Your task to perform on an android device: Open Google Chrome and open the bookmarks view Image 0: 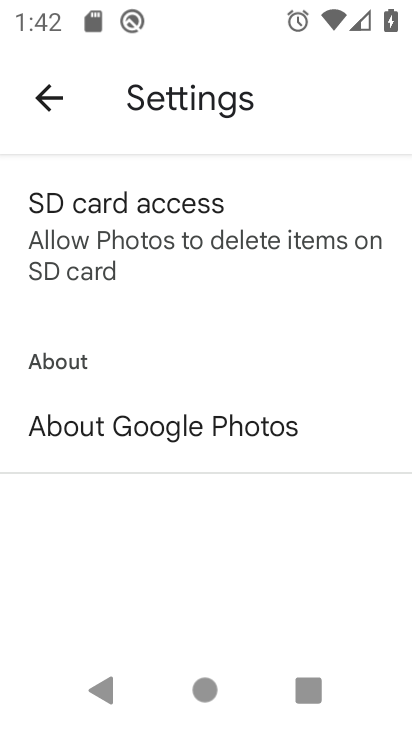
Step 0: press home button
Your task to perform on an android device: Open Google Chrome and open the bookmarks view Image 1: 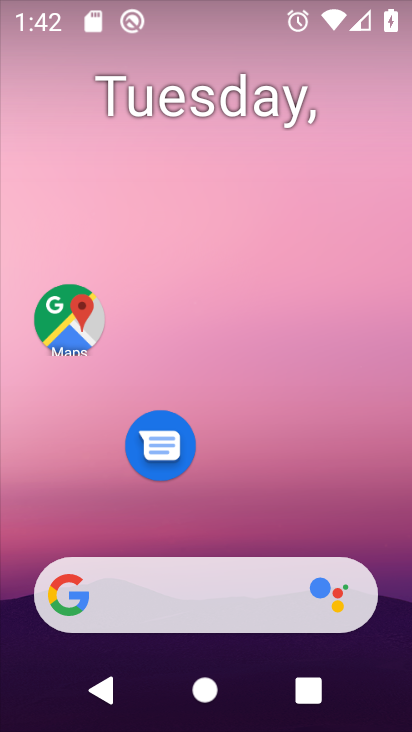
Step 1: drag from (265, 462) to (172, 110)
Your task to perform on an android device: Open Google Chrome and open the bookmarks view Image 2: 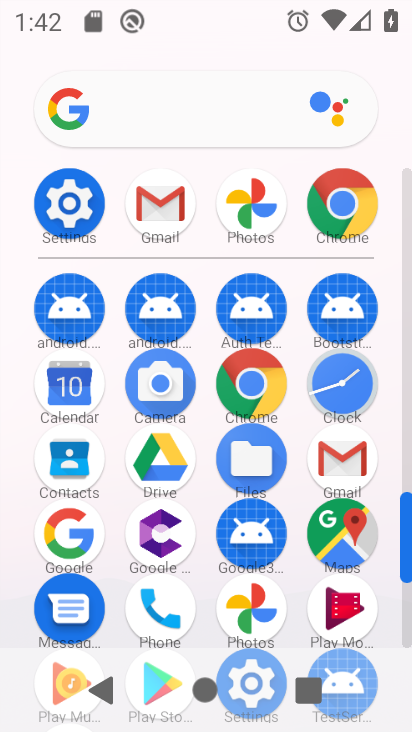
Step 2: click (339, 201)
Your task to perform on an android device: Open Google Chrome and open the bookmarks view Image 3: 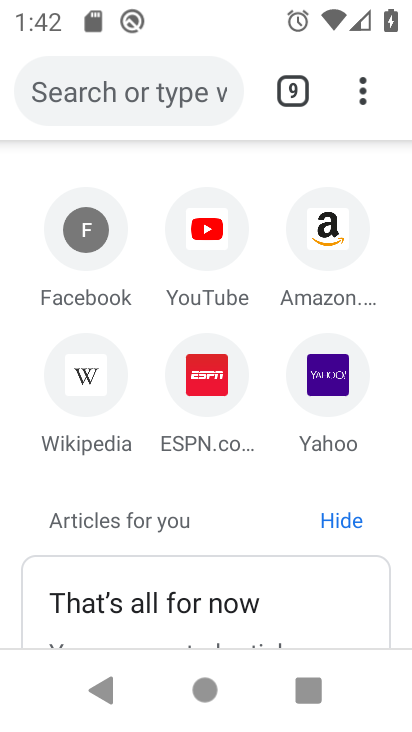
Step 3: click (361, 89)
Your task to perform on an android device: Open Google Chrome and open the bookmarks view Image 4: 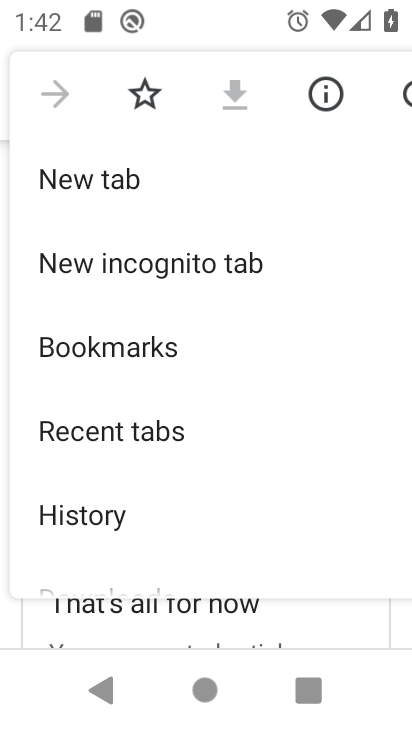
Step 4: click (122, 336)
Your task to perform on an android device: Open Google Chrome and open the bookmarks view Image 5: 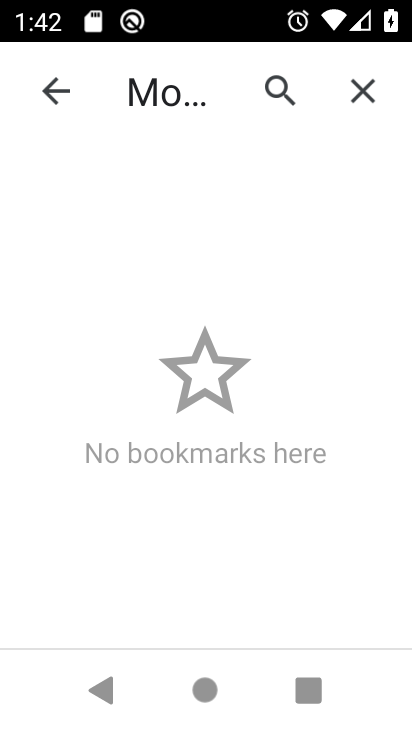
Step 5: click (50, 100)
Your task to perform on an android device: Open Google Chrome and open the bookmarks view Image 6: 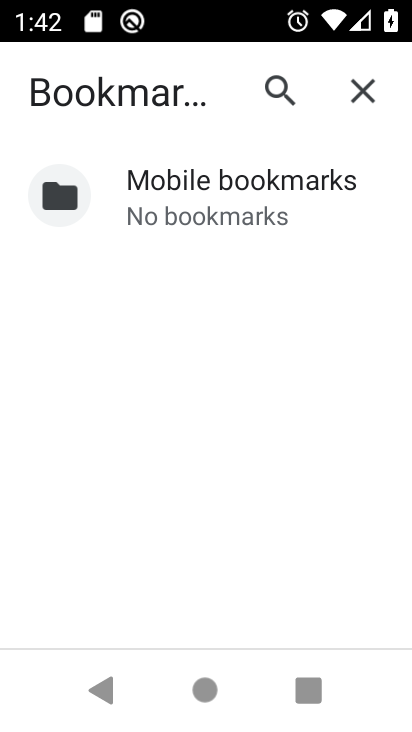
Step 6: task complete